Your task to perform on an android device: Open location settings Image 0: 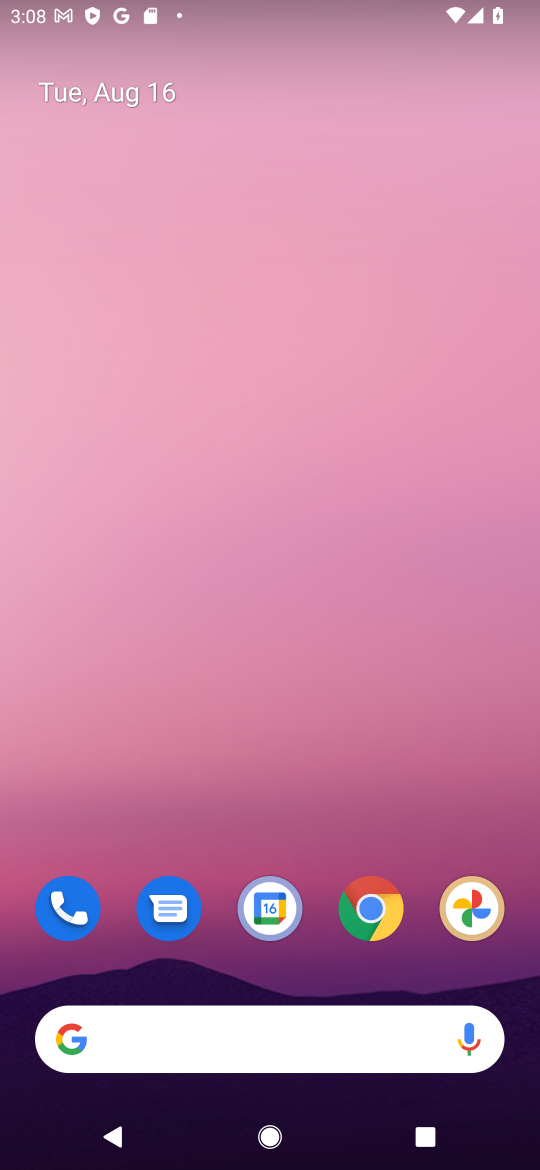
Step 0: drag from (276, 782) to (400, 175)
Your task to perform on an android device: Open location settings Image 1: 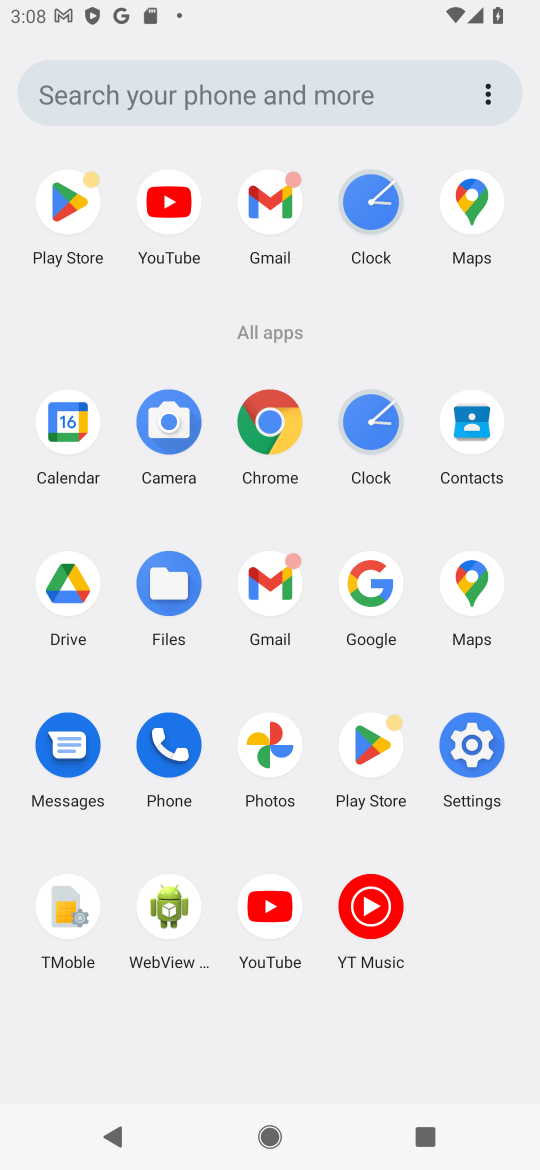
Step 1: click (470, 749)
Your task to perform on an android device: Open location settings Image 2: 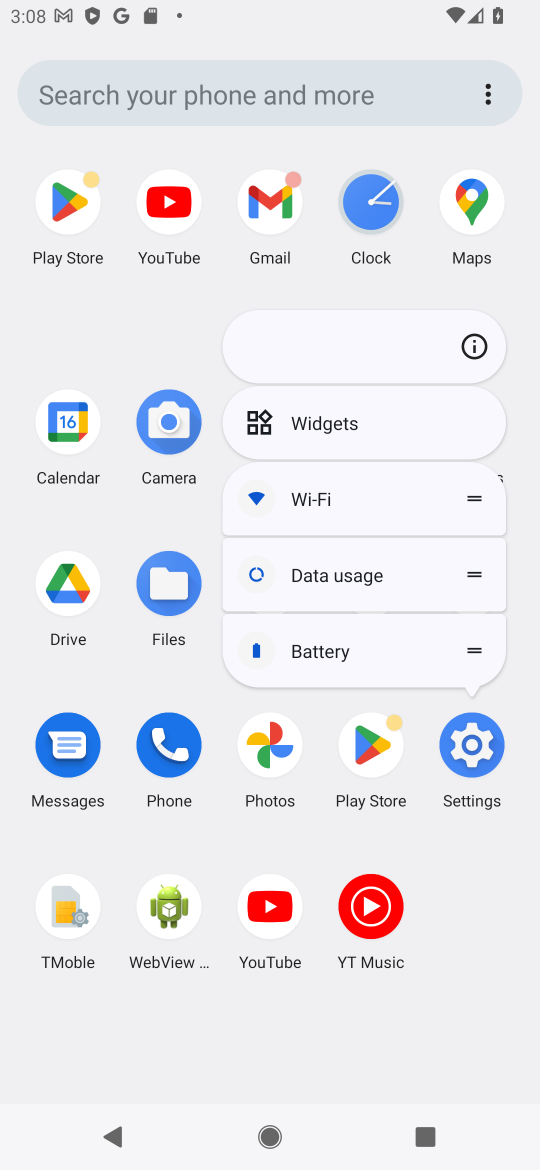
Step 2: click (458, 772)
Your task to perform on an android device: Open location settings Image 3: 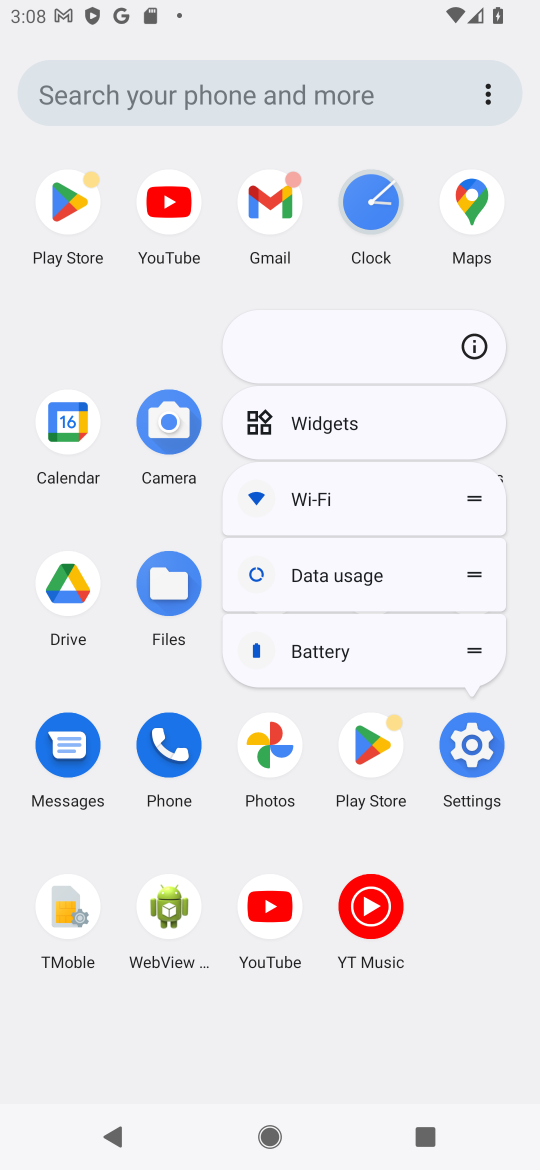
Step 3: click (488, 740)
Your task to perform on an android device: Open location settings Image 4: 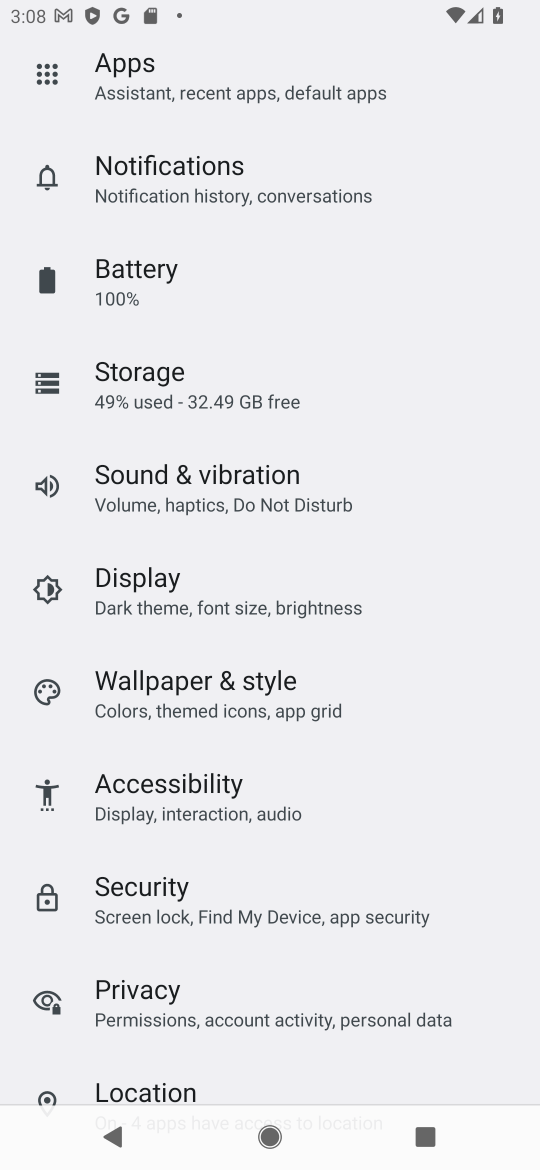
Step 4: click (135, 1092)
Your task to perform on an android device: Open location settings Image 5: 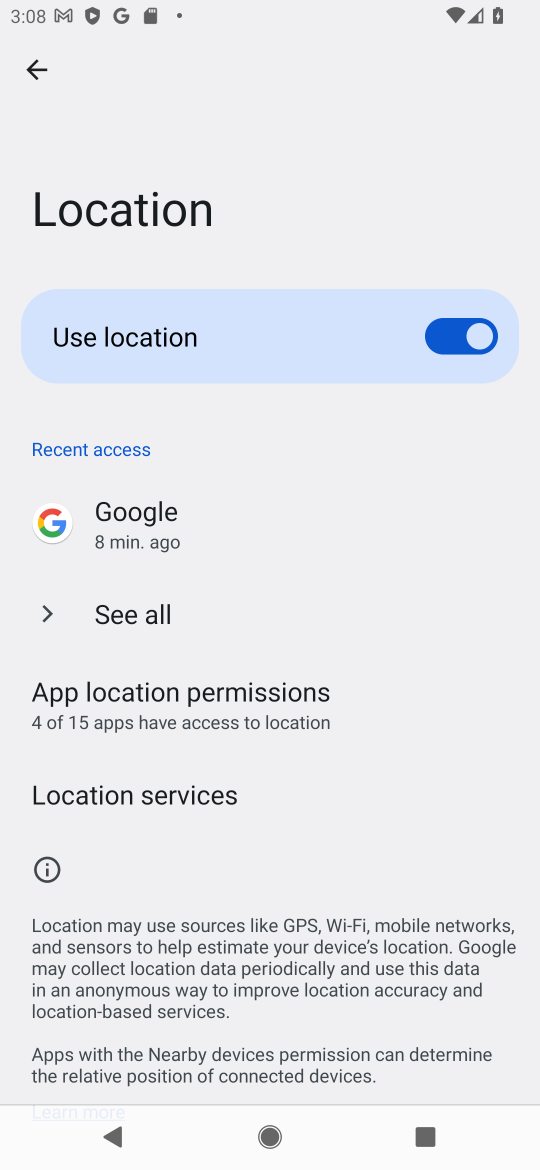
Step 5: task complete